Your task to perform on an android device: Open Wikipedia Image 0: 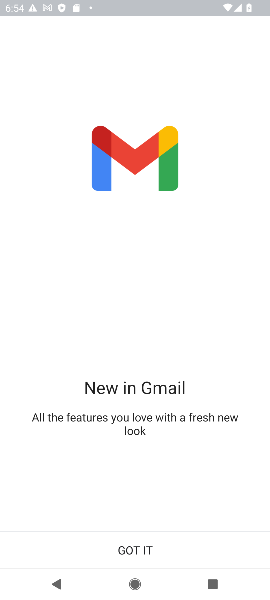
Step 0: press home button
Your task to perform on an android device: Open Wikipedia Image 1: 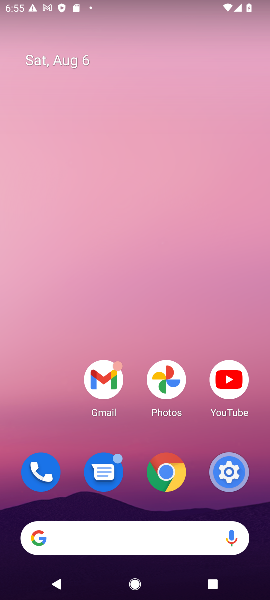
Step 1: click (164, 473)
Your task to perform on an android device: Open Wikipedia Image 2: 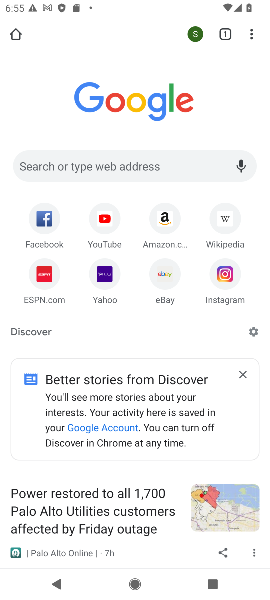
Step 2: click (227, 228)
Your task to perform on an android device: Open Wikipedia Image 3: 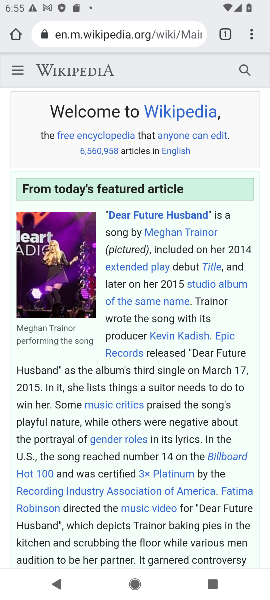
Step 3: task complete